Your task to perform on an android device: Search for hotels in Paris Image 0: 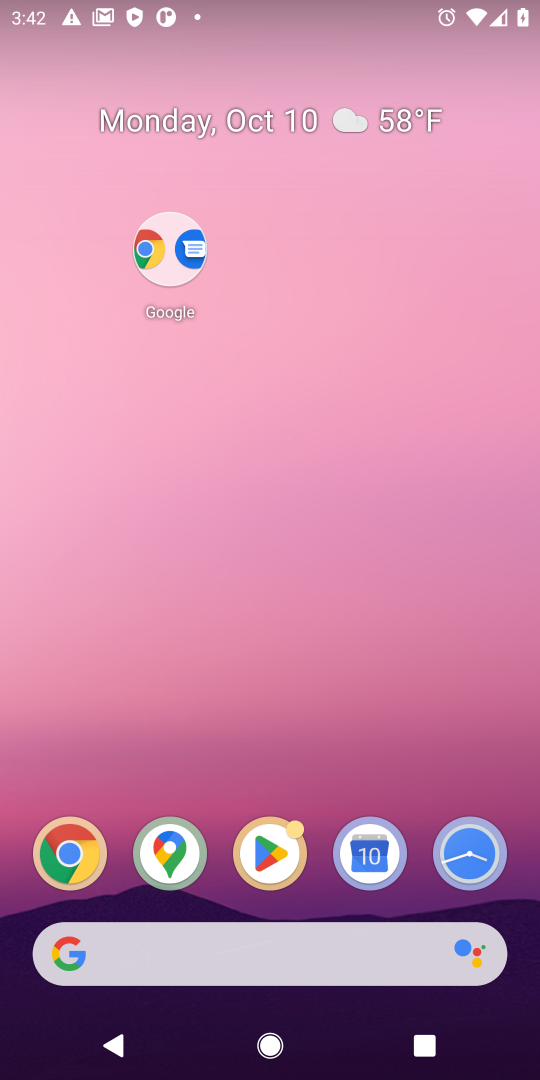
Step 0: click (63, 849)
Your task to perform on an android device: Search for hotels in Paris Image 1: 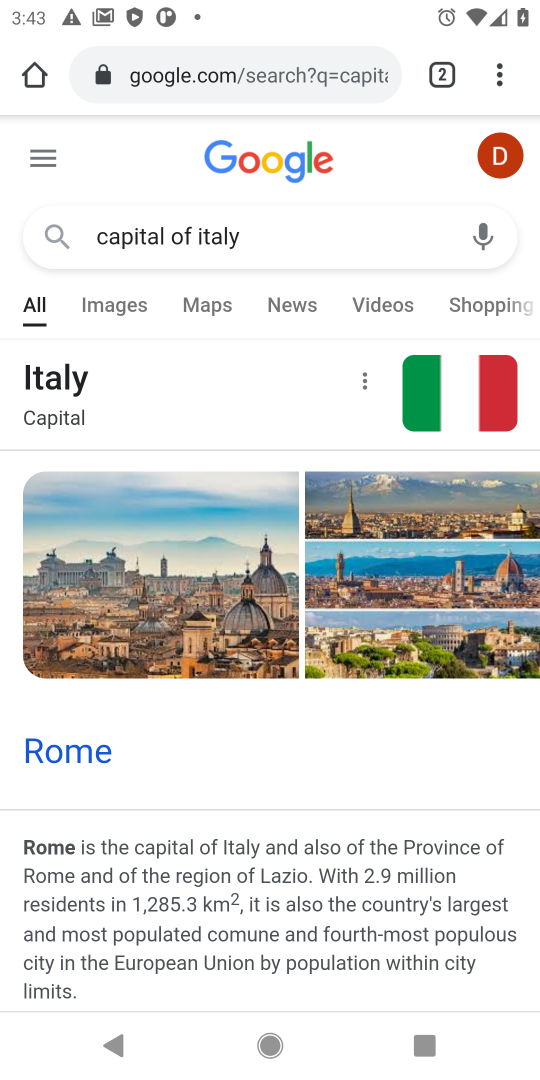
Step 1: click (323, 70)
Your task to perform on an android device: Search for hotels in Paris Image 2: 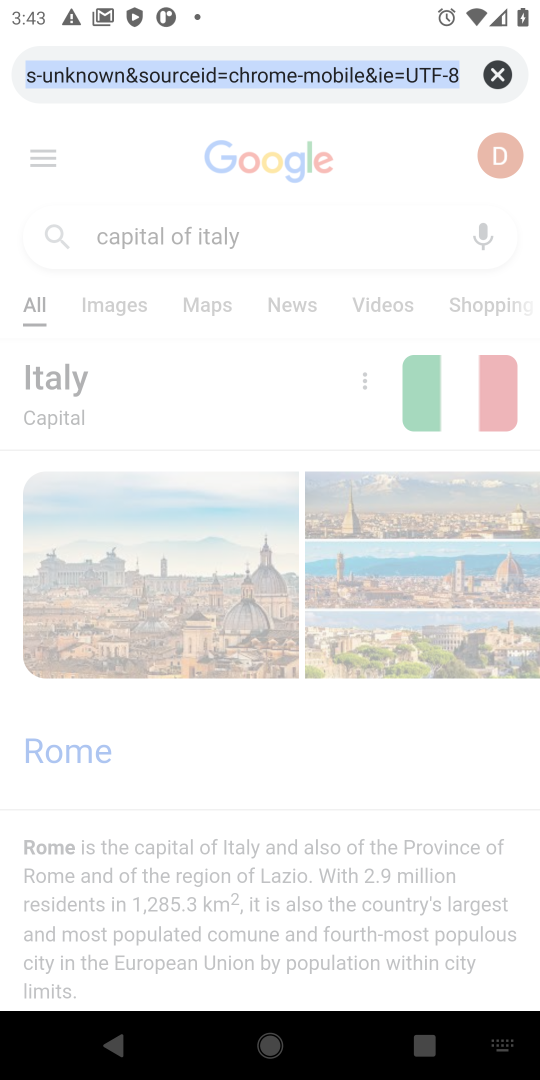
Step 2: type "hotels in paris"
Your task to perform on an android device: Search for hotels in Paris Image 3: 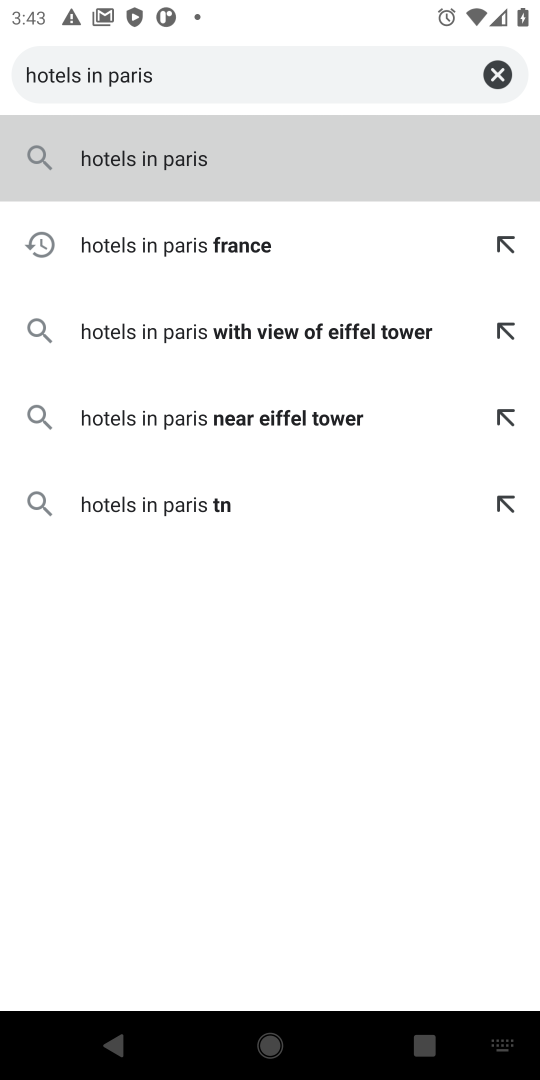
Step 3: click (176, 163)
Your task to perform on an android device: Search for hotels in Paris Image 4: 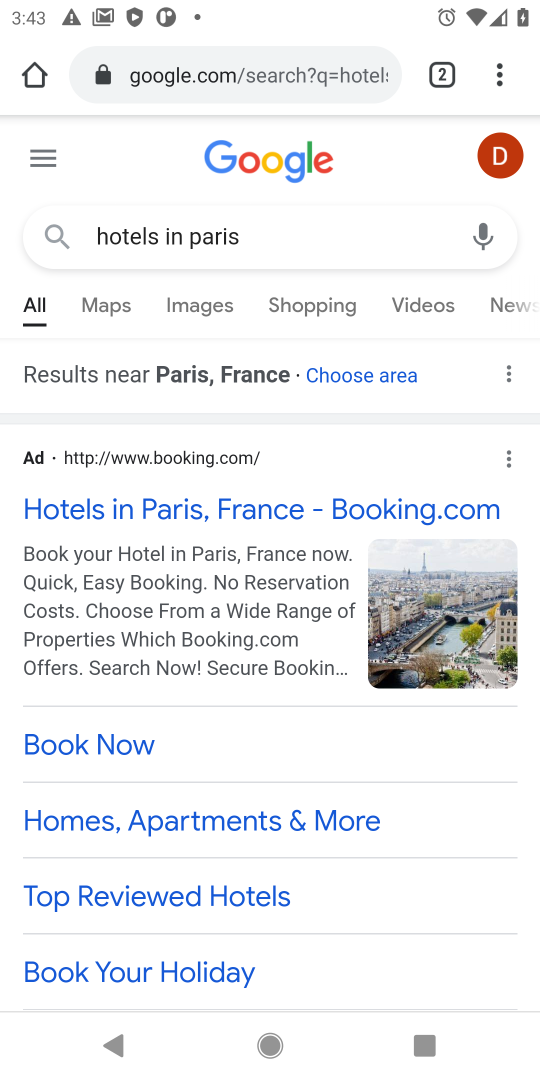
Step 4: click (172, 524)
Your task to perform on an android device: Search for hotels in Paris Image 5: 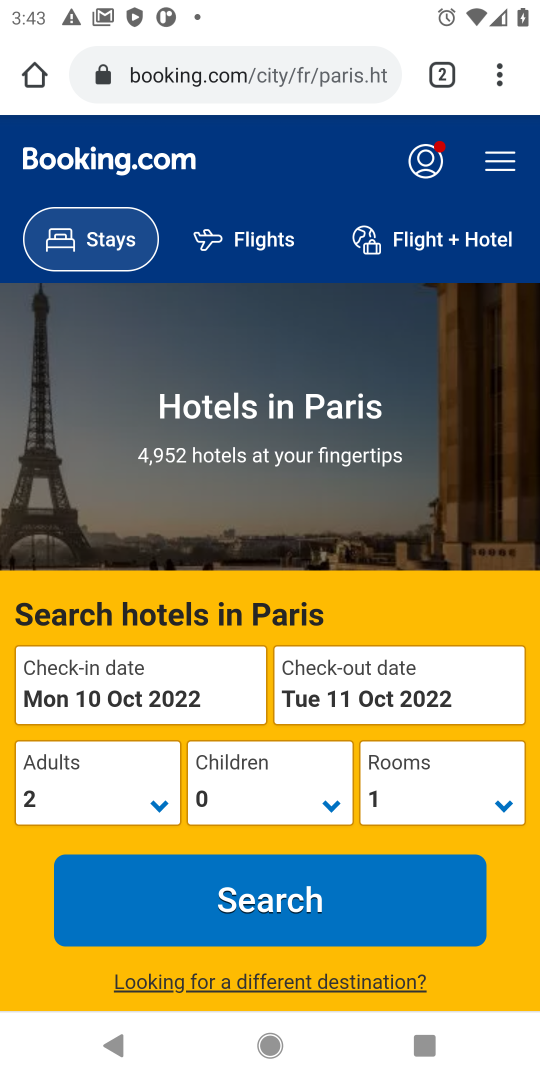
Step 5: click (256, 905)
Your task to perform on an android device: Search for hotels in Paris Image 6: 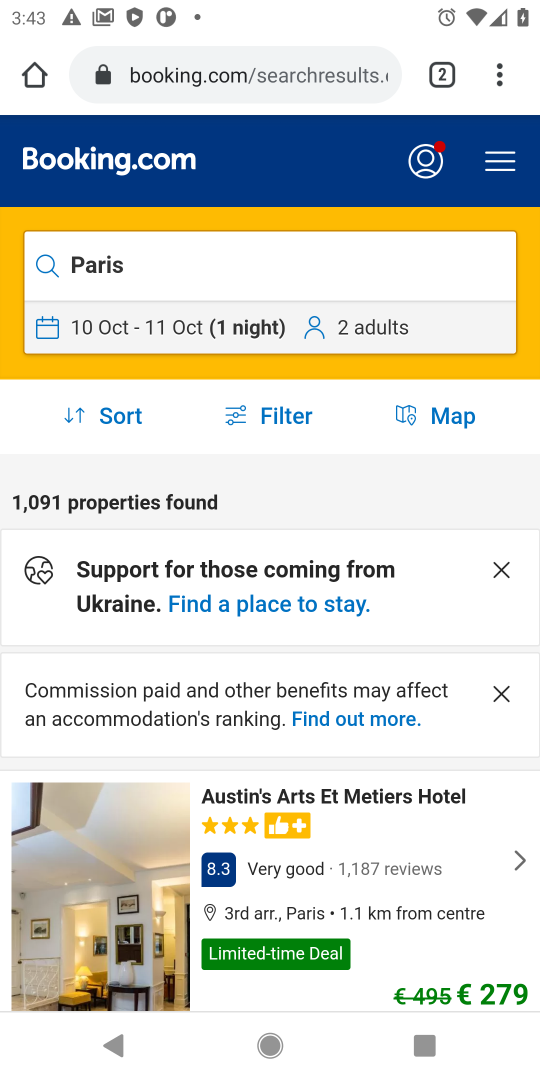
Step 6: task complete